Your task to perform on an android device: open a bookmark in the chrome app Image 0: 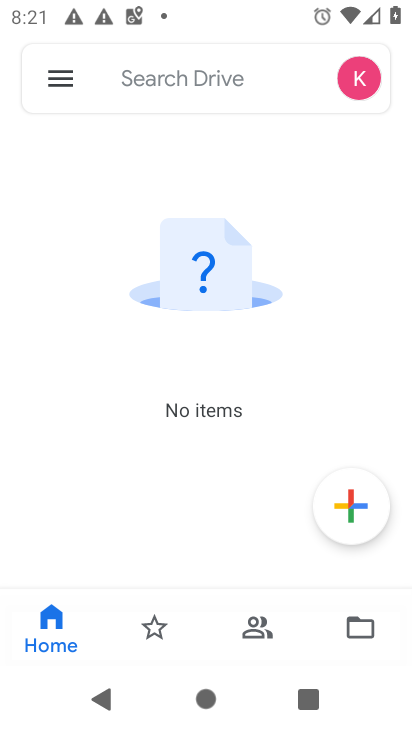
Step 0: press back button
Your task to perform on an android device: open a bookmark in the chrome app Image 1: 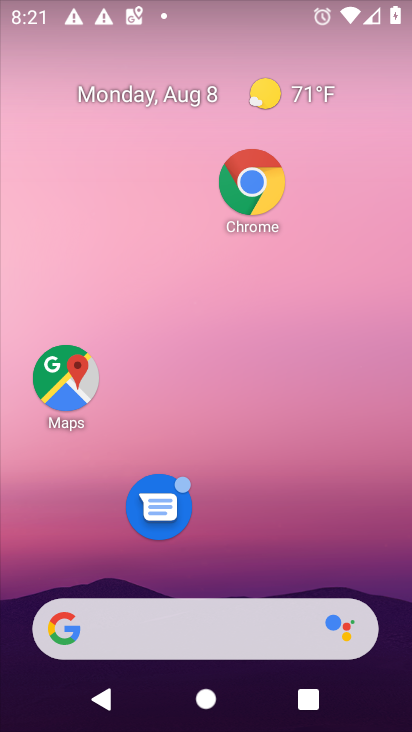
Step 1: drag from (252, 571) to (216, 58)
Your task to perform on an android device: open a bookmark in the chrome app Image 2: 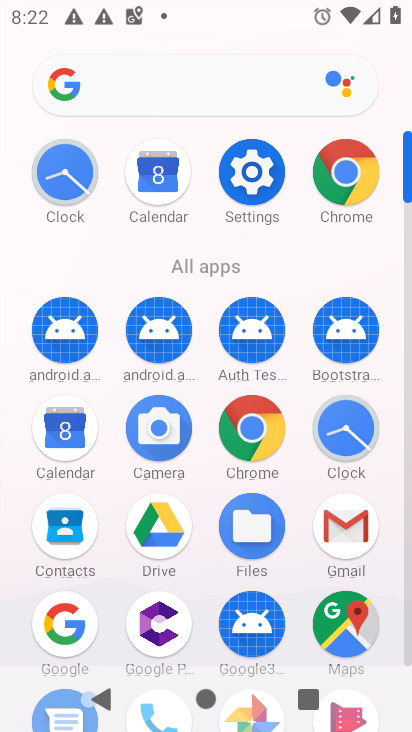
Step 2: click (329, 193)
Your task to perform on an android device: open a bookmark in the chrome app Image 3: 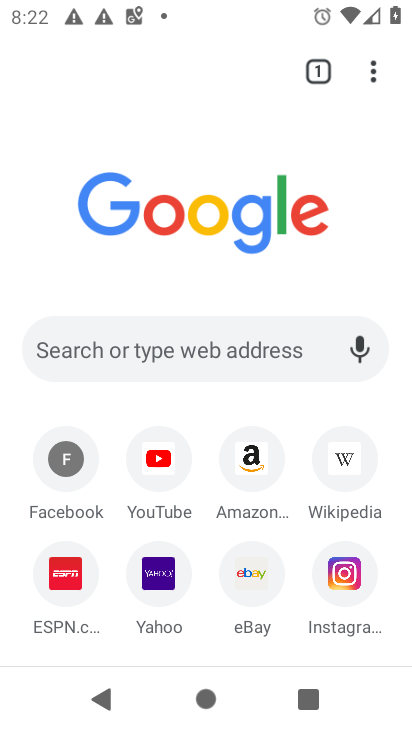
Step 3: click (379, 72)
Your task to perform on an android device: open a bookmark in the chrome app Image 4: 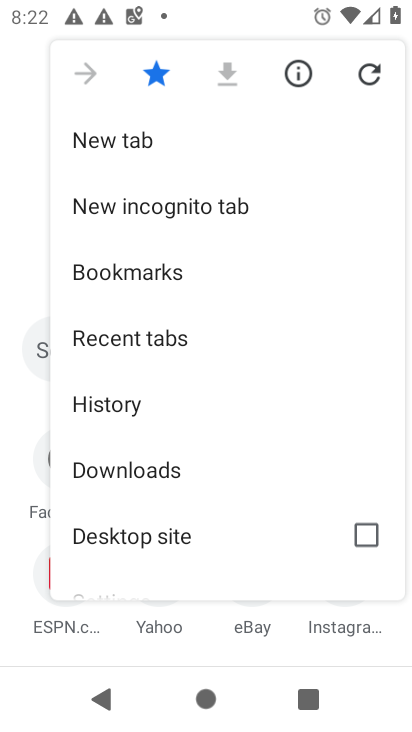
Step 4: click (91, 264)
Your task to perform on an android device: open a bookmark in the chrome app Image 5: 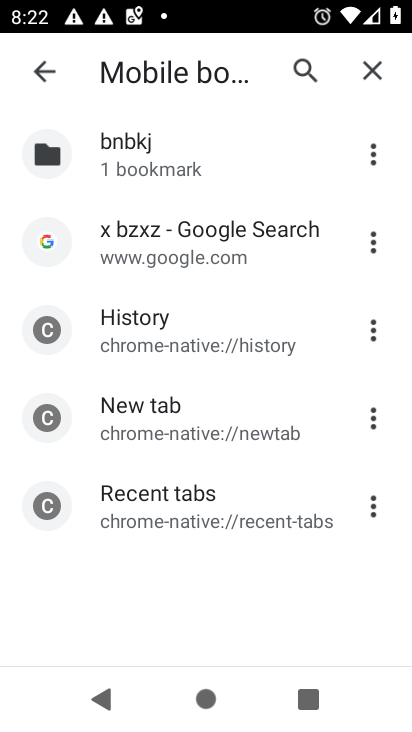
Step 5: task complete